Your task to perform on an android device: Open the Play Movies app and select the watchlist tab. Image 0: 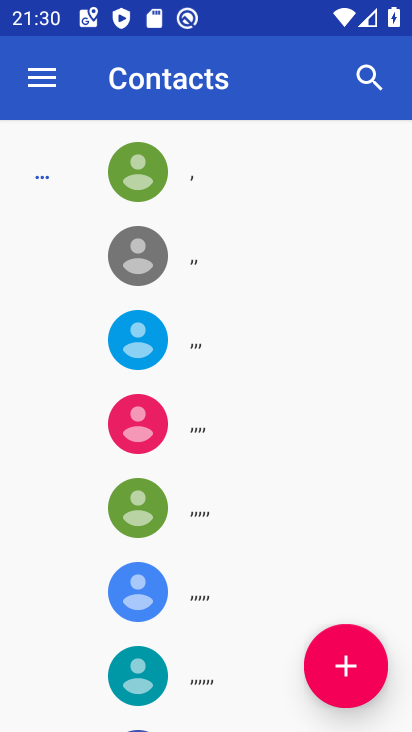
Step 0: press home button
Your task to perform on an android device: Open the Play Movies app and select the watchlist tab. Image 1: 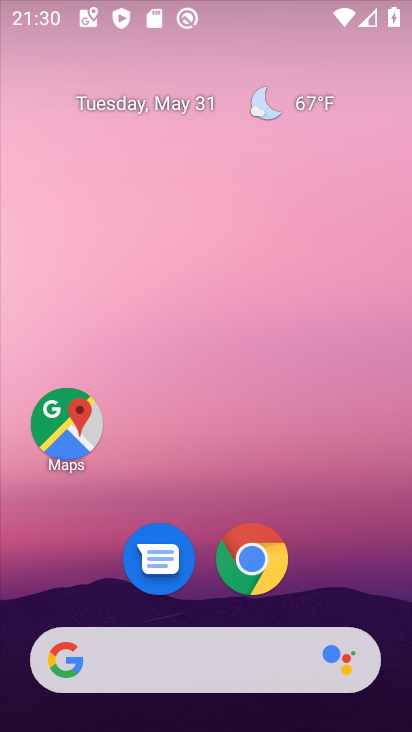
Step 1: drag from (327, 580) to (353, 27)
Your task to perform on an android device: Open the Play Movies app and select the watchlist tab. Image 2: 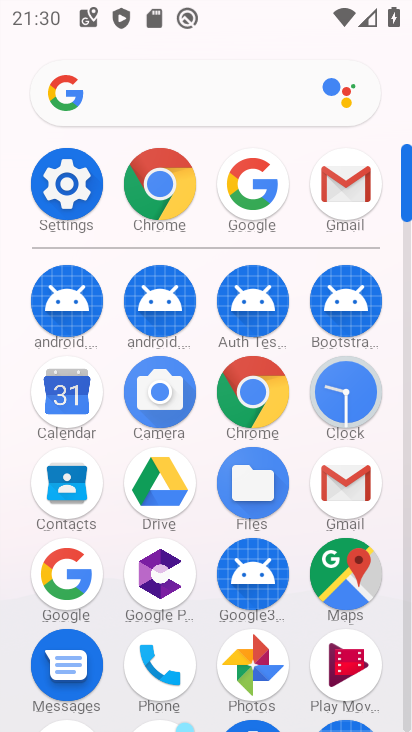
Step 2: click (326, 667)
Your task to perform on an android device: Open the Play Movies app and select the watchlist tab. Image 3: 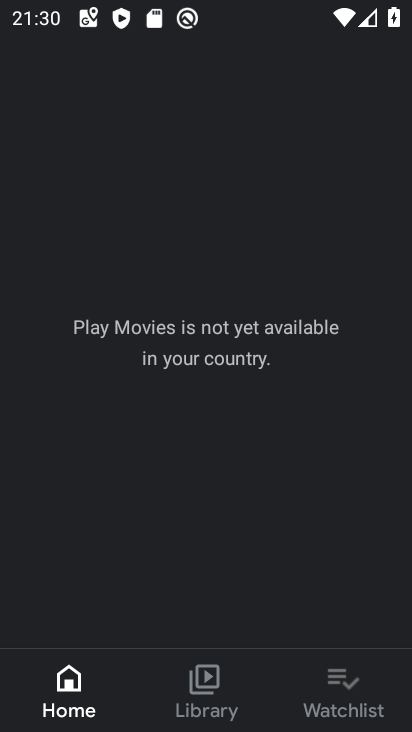
Step 3: click (347, 681)
Your task to perform on an android device: Open the Play Movies app and select the watchlist tab. Image 4: 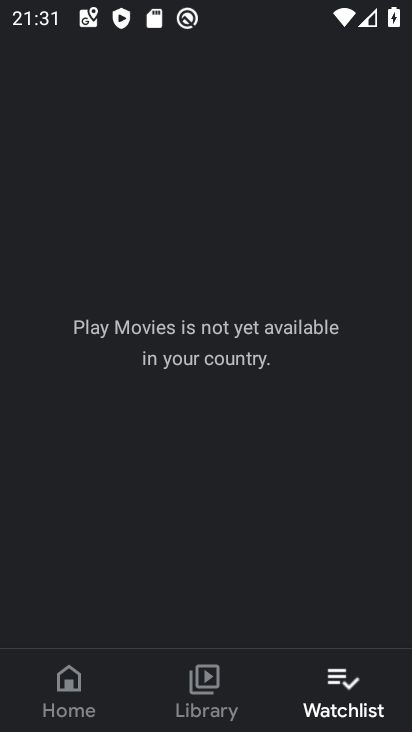
Step 4: task complete